Your task to perform on an android device: delete browsing data in the chrome app Image 0: 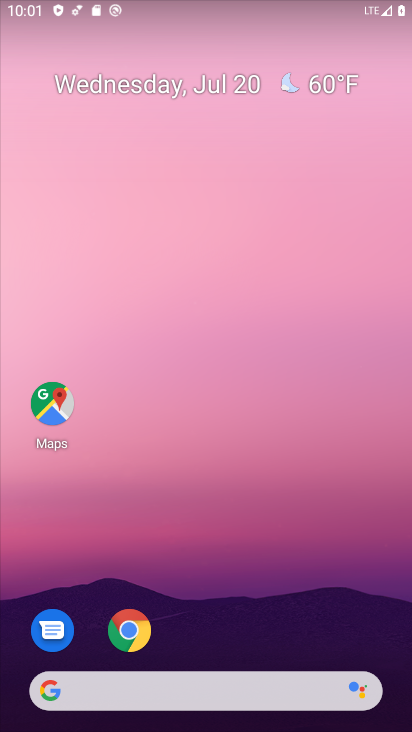
Step 0: click (134, 624)
Your task to perform on an android device: delete browsing data in the chrome app Image 1: 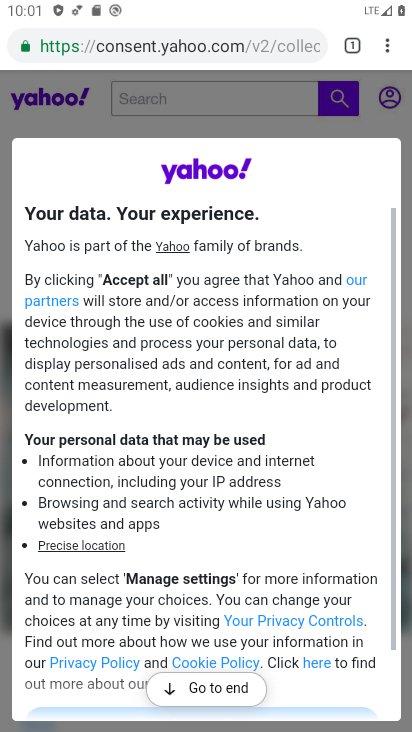
Step 1: click (386, 55)
Your task to perform on an android device: delete browsing data in the chrome app Image 2: 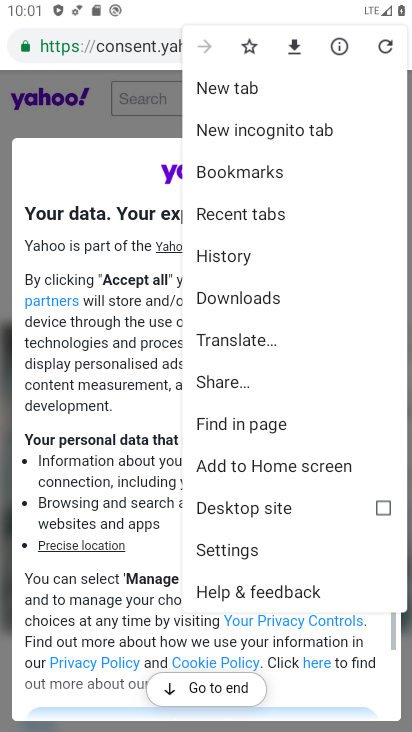
Step 2: click (222, 268)
Your task to perform on an android device: delete browsing data in the chrome app Image 3: 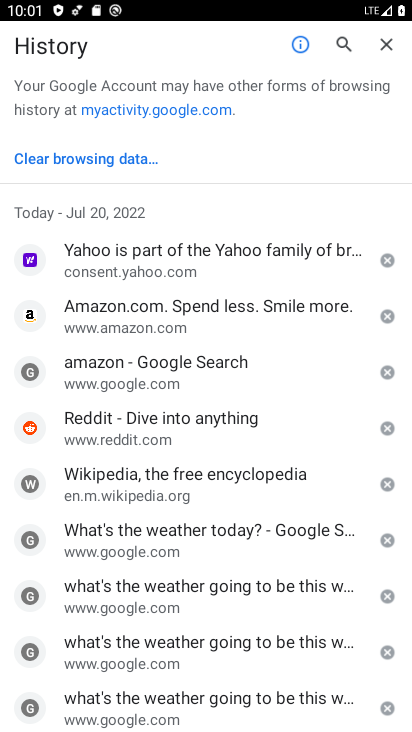
Step 3: click (86, 160)
Your task to perform on an android device: delete browsing data in the chrome app Image 4: 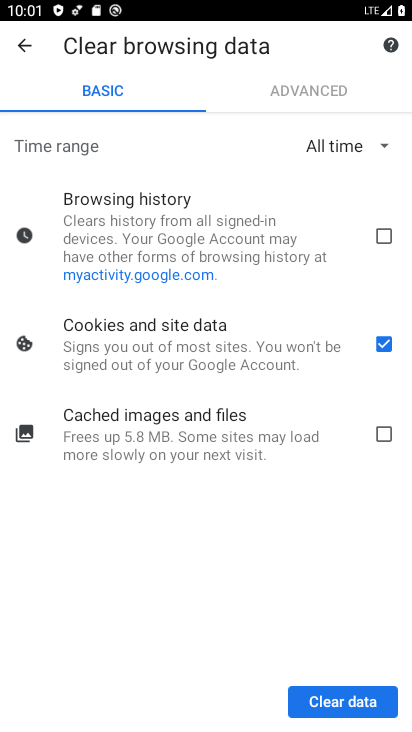
Step 4: click (369, 248)
Your task to perform on an android device: delete browsing data in the chrome app Image 5: 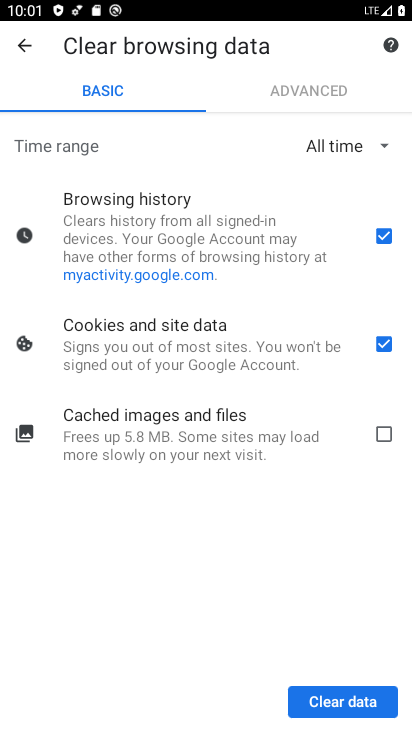
Step 5: click (376, 427)
Your task to perform on an android device: delete browsing data in the chrome app Image 6: 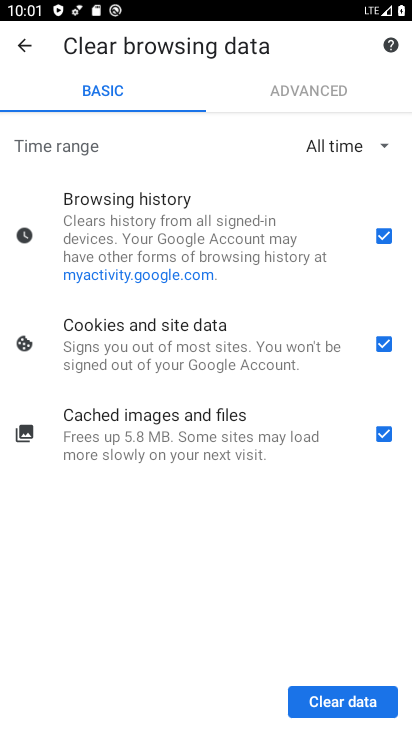
Step 6: click (347, 697)
Your task to perform on an android device: delete browsing data in the chrome app Image 7: 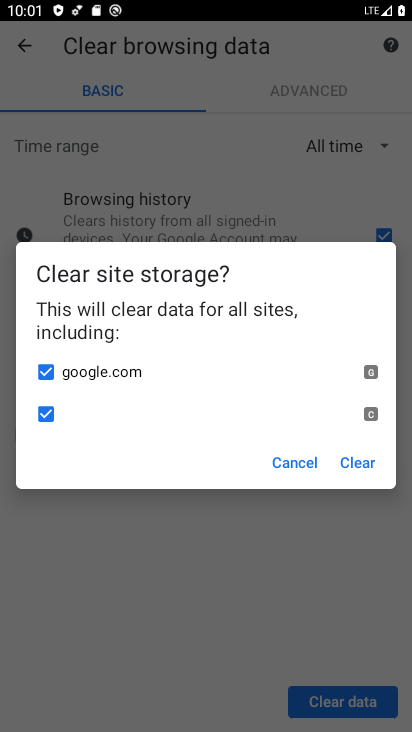
Step 7: click (357, 458)
Your task to perform on an android device: delete browsing data in the chrome app Image 8: 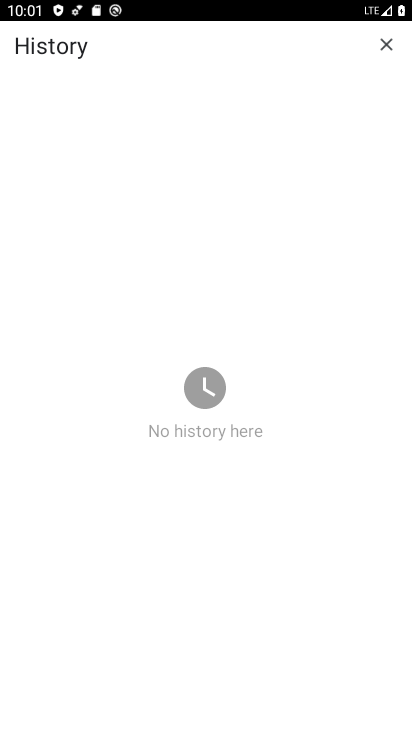
Step 8: task complete